Your task to perform on an android device: check google app version Image 0: 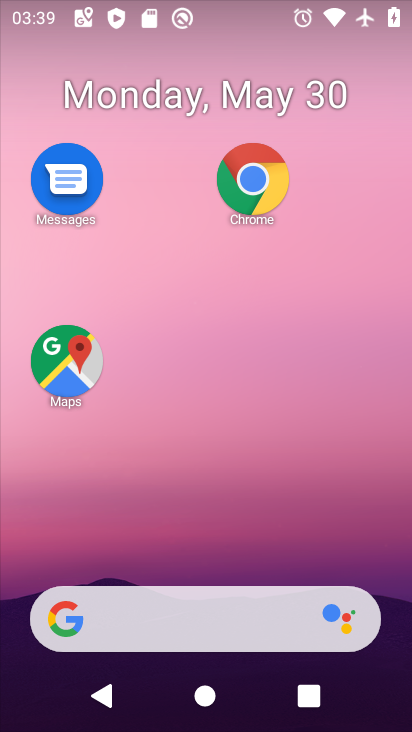
Step 0: drag from (206, 561) to (263, 23)
Your task to perform on an android device: check google app version Image 1: 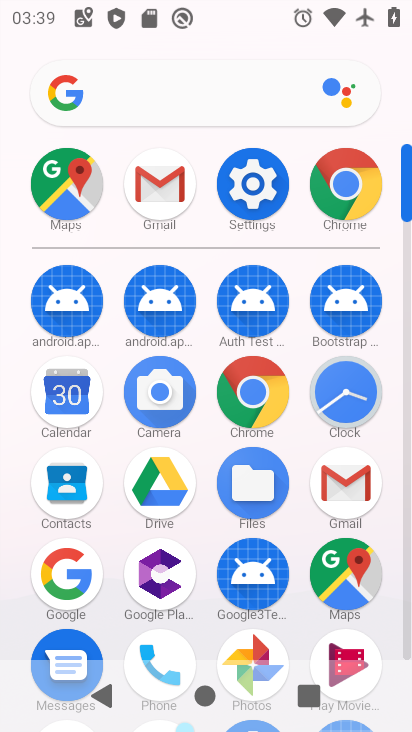
Step 1: click (71, 569)
Your task to perform on an android device: check google app version Image 2: 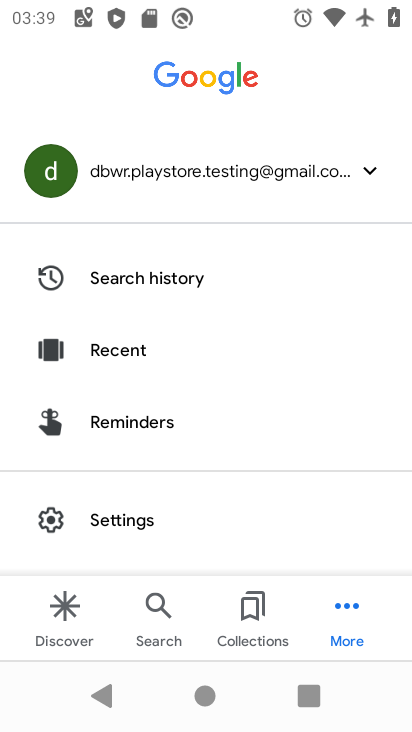
Step 2: click (119, 531)
Your task to perform on an android device: check google app version Image 3: 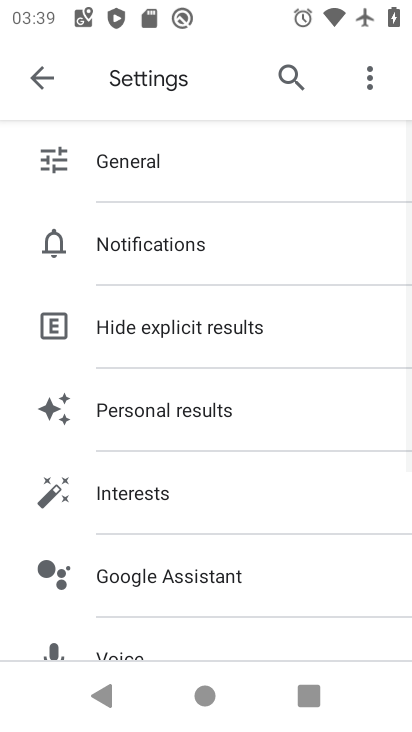
Step 3: drag from (127, 622) to (205, 187)
Your task to perform on an android device: check google app version Image 4: 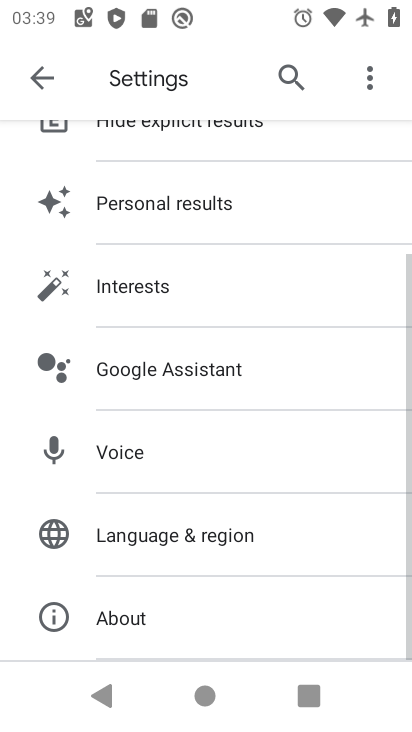
Step 4: click (124, 632)
Your task to perform on an android device: check google app version Image 5: 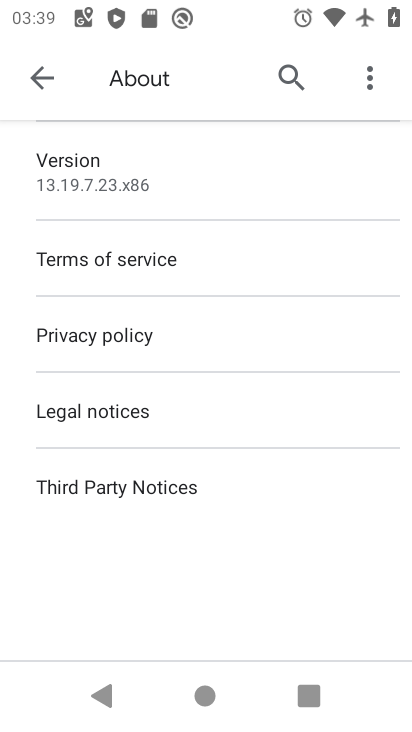
Step 5: task complete